Your task to perform on an android device: toggle javascript in the chrome app Image 0: 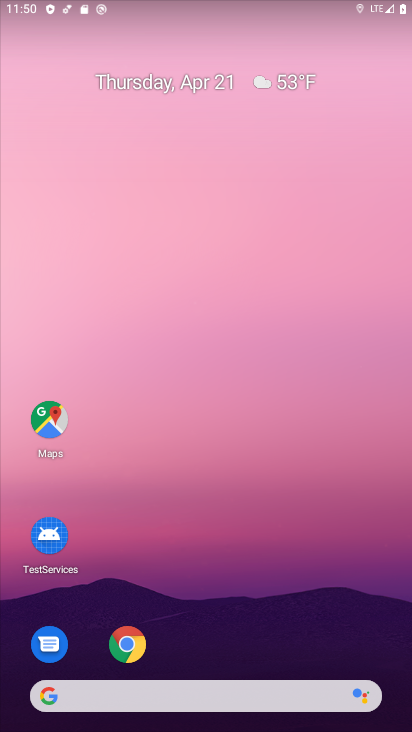
Step 0: drag from (303, 549) to (267, 106)
Your task to perform on an android device: toggle javascript in the chrome app Image 1: 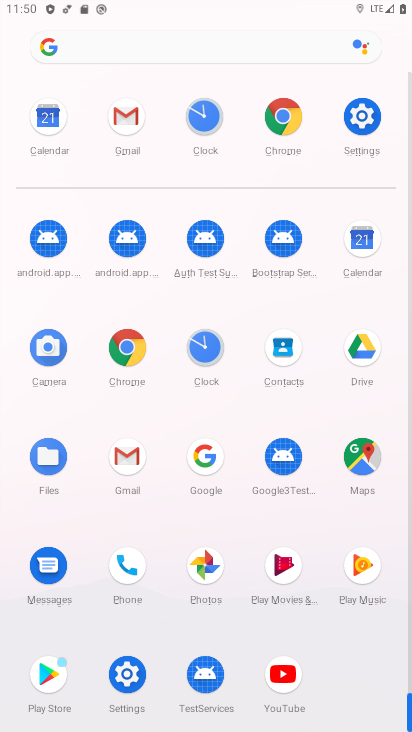
Step 1: click (118, 339)
Your task to perform on an android device: toggle javascript in the chrome app Image 2: 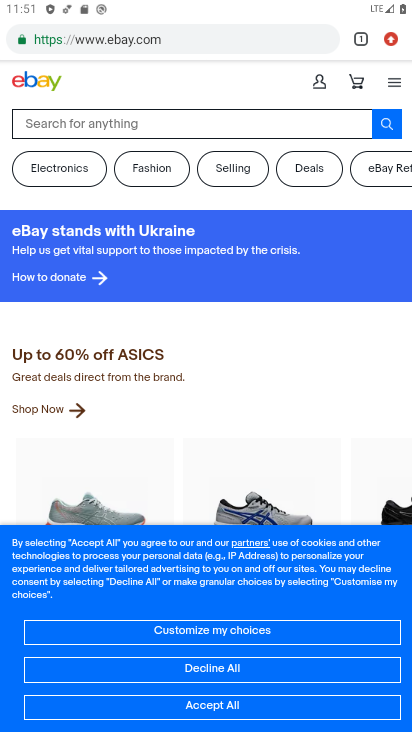
Step 2: drag from (403, 31) to (260, 510)
Your task to perform on an android device: toggle javascript in the chrome app Image 3: 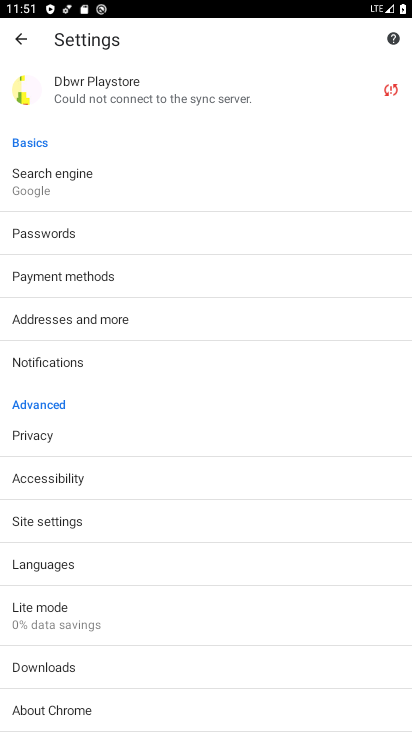
Step 3: drag from (79, 612) to (143, 328)
Your task to perform on an android device: toggle javascript in the chrome app Image 4: 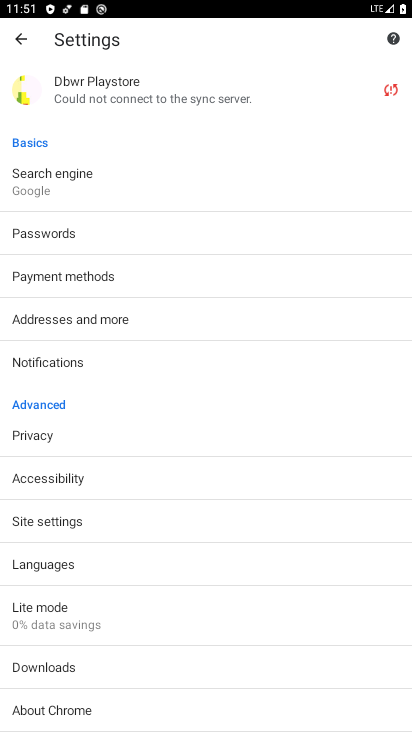
Step 4: click (61, 516)
Your task to perform on an android device: toggle javascript in the chrome app Image 5: 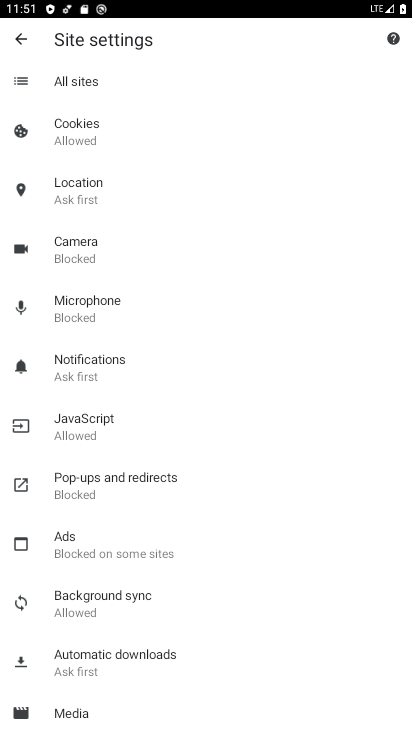
Step 5: click (85, 427)
Your task to perform on an android device: toggle javascript in the chrome app Image 6: 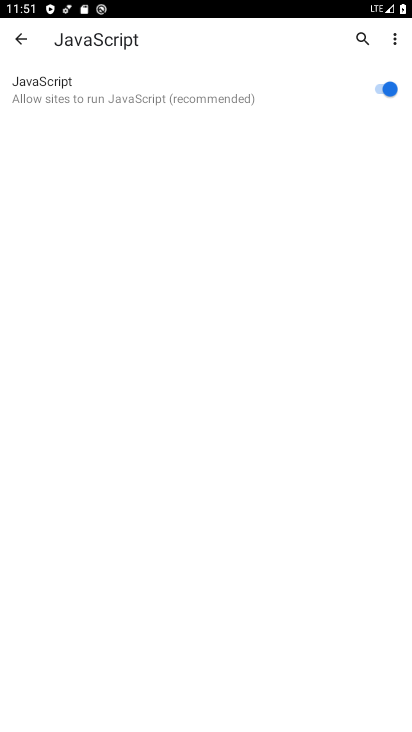
Step 6: click (385, 79)
Your task to perform on an android device: toggle javascript in the chrome app Image 7: 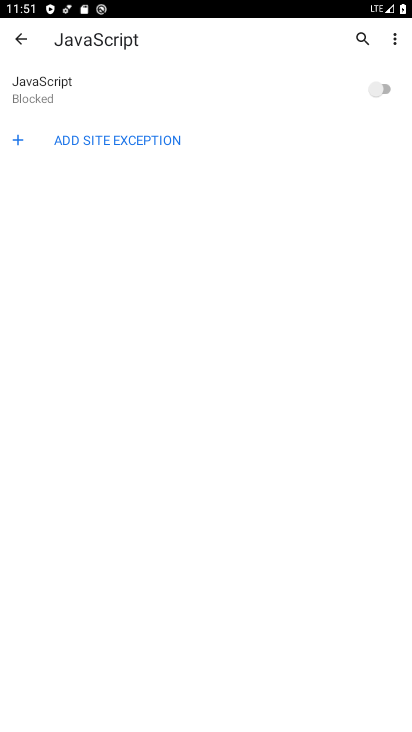
Step 7: task complete